Your task to perform on an android device: open sync settings in chrome Image 0: 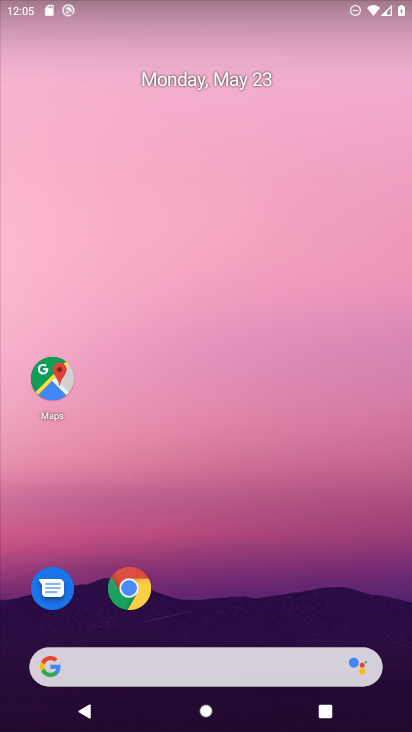
Step 0: drag from (259, 680) to (171, 96)
Your task to perform on an android device: open sync settings in chrome Image 1: 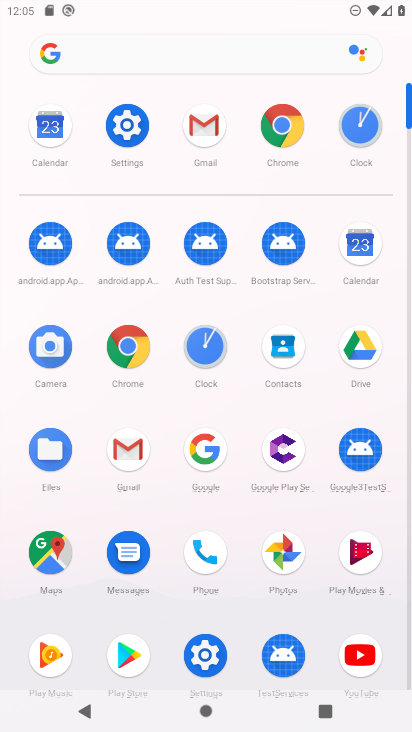
Step 1: click (282, 131)
Your task to perform on an android device: open sync settings in chrome Image 2: 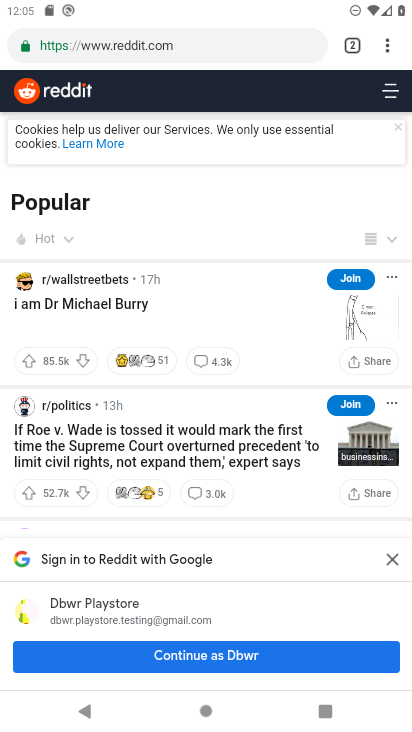
Step 2: click (386, 46)
Your task to perform on an android device: open sync settings in chrome Image 3: 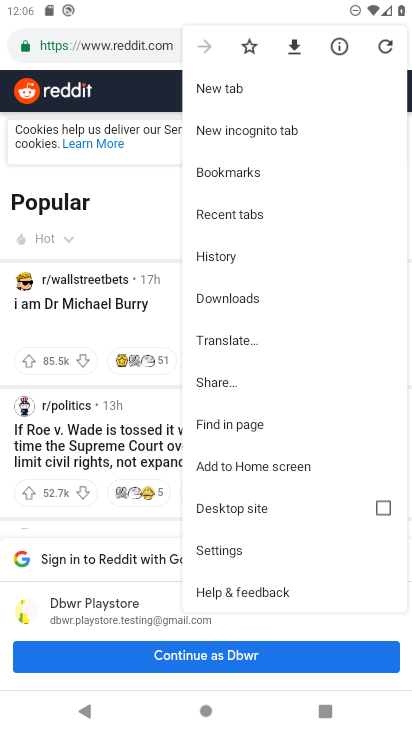
Step 3: click (218, 550)
Your task to perform on an android device: open sync settings in chrome Image 4: 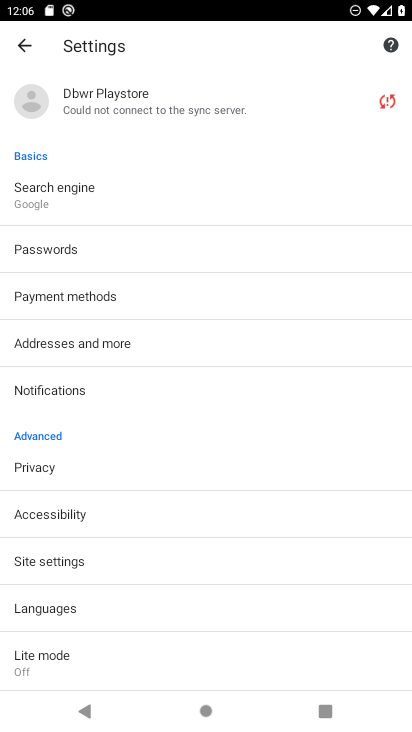
Step 4: click (65, 571)
Your task to perform on an android device: open sync settings in chrome Image 5: 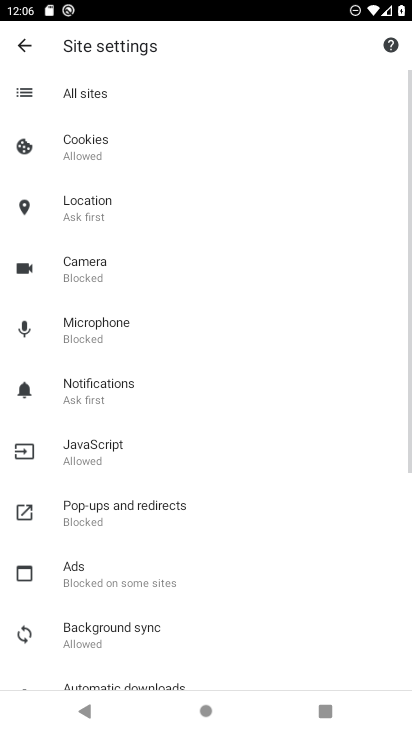
Step 5: click (132, 620)
Your task to perform on an android device: open sync settings in chrome Image 6: 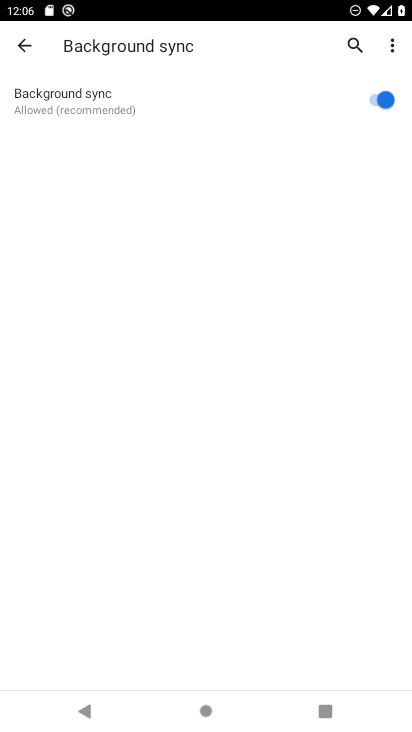
Step 6: task complete